Your task to perform on an android device: find which apps use the phone's location Image 0: 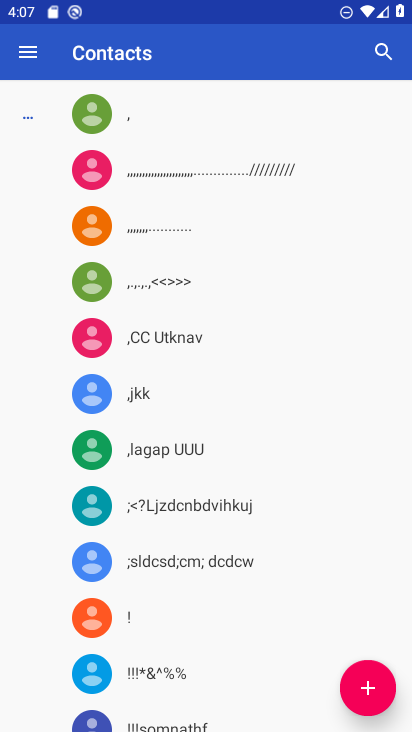
Step 0: press home button
Your task to perform on an android device: find which apps use the phone's location Image 1: 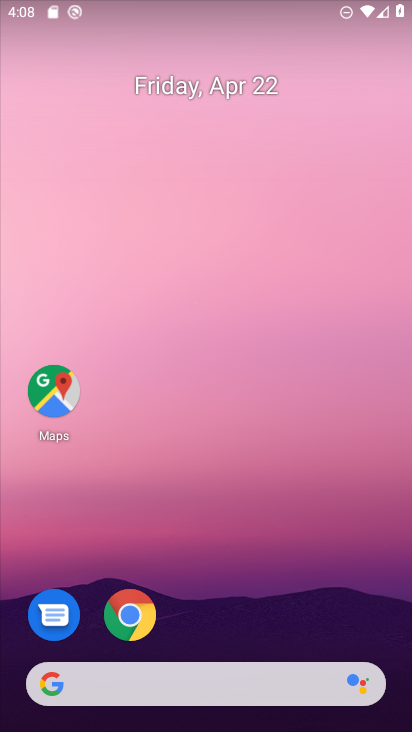
Step 1: drag from (275, 622) to (296, 90)
Your task to perform on an android device: find which apps use the phone's location Image 2: 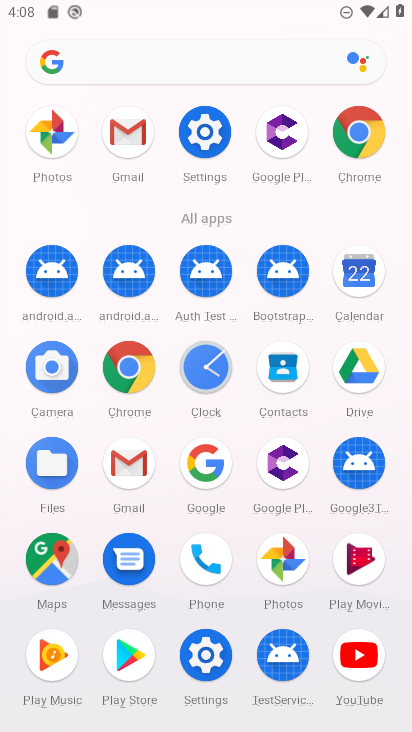
Step 2: click (204, 144)
Your task to perform on an android device: find which apps use the phone's location Image 3: 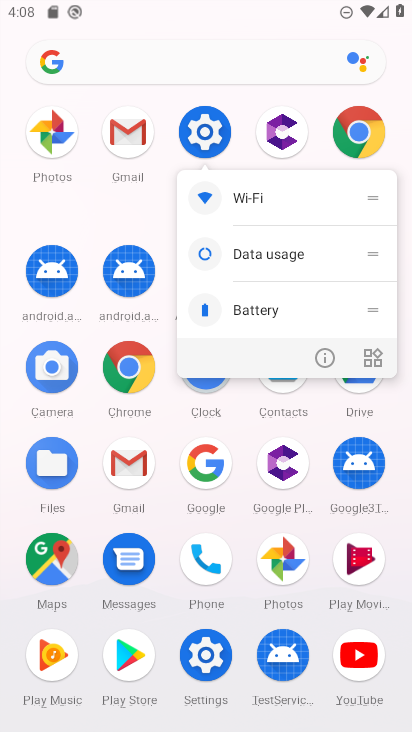
Step 3: click (193, 139)
Your task to perform on an android device: find which apps use the phone's location Image 4: 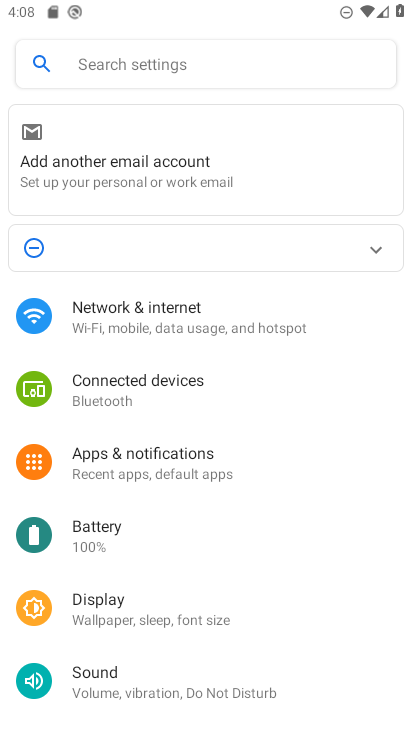
Step 4: drag from (254, 691) to (274, 256)
Your task to perform on an android device: find which apps use the phone's location Image 5: 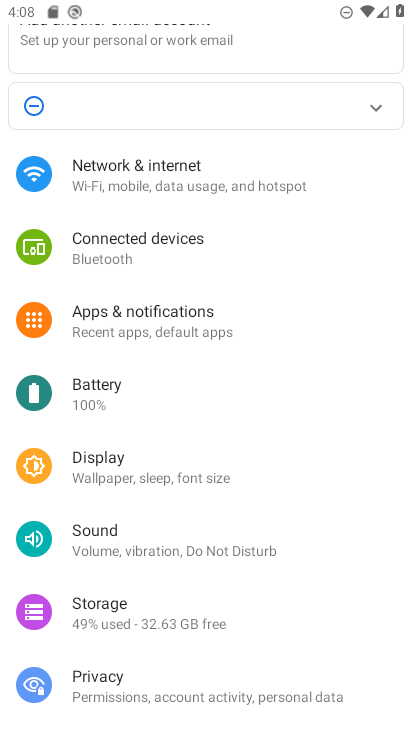
Step 5: drag from (227, 565) to (298, 390)
Your task to perform on an android device: find which apps use the phone's location Image 6: 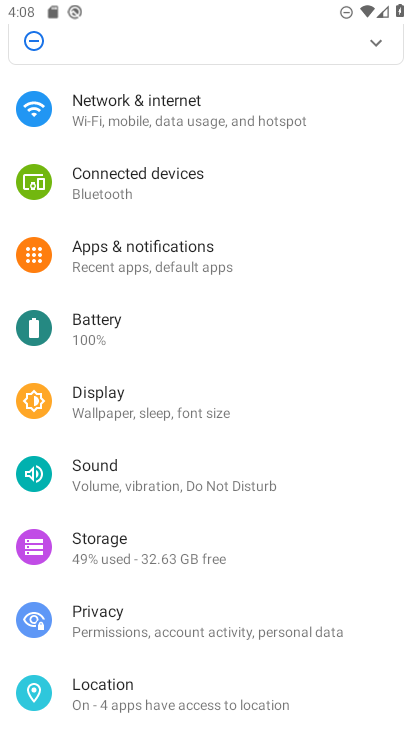
Step 6: drag from (125, 649) to (196, 470)
Your task to perform on an android device: find which apps use the phone's location Image 7: 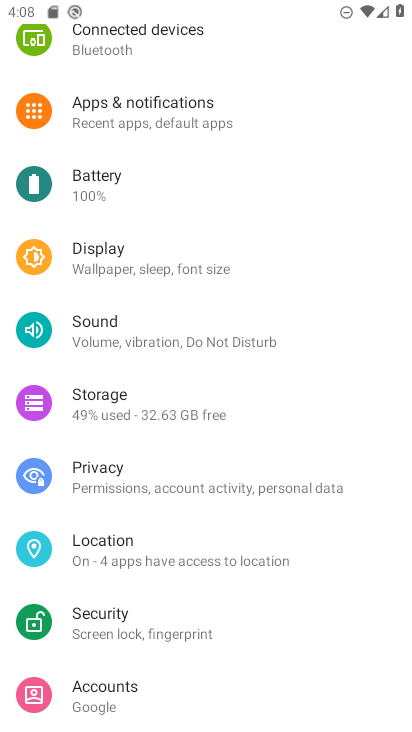
Step 7: click (131, 553)
Your task to perform on an android device: find which apps use the phone's location Image 8: 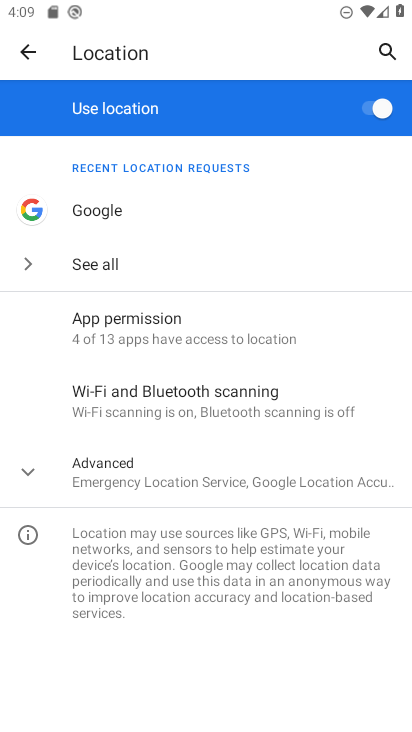
Step 8: click (131, 468)
Your task to perform on an android device: find which apps use the phone's location Image 9: 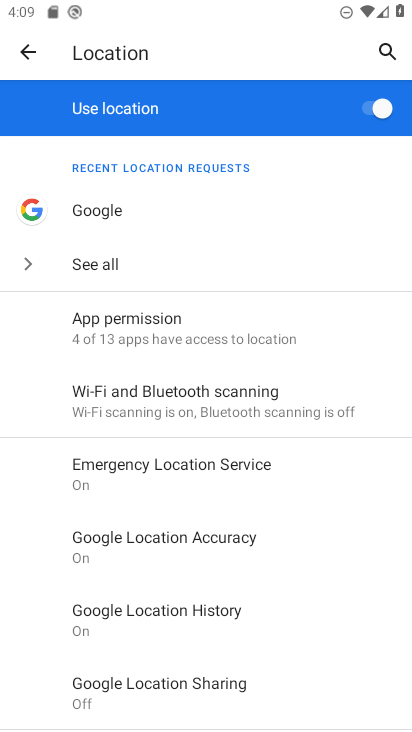
Step 9: click (156, 325)
Your task to perform on an android device: find which apps use the phone's location Image 10: 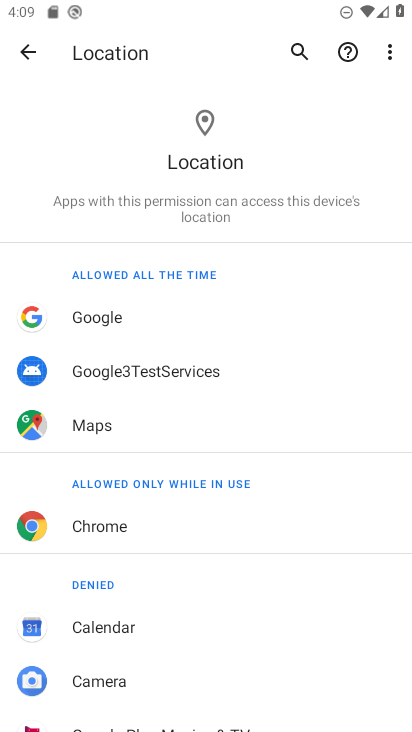
Step 10: task complete